Your task to perform on an android device: Search for "razer blackwidow" on amazon, select the first entry, and add it to the cart. Image 0: 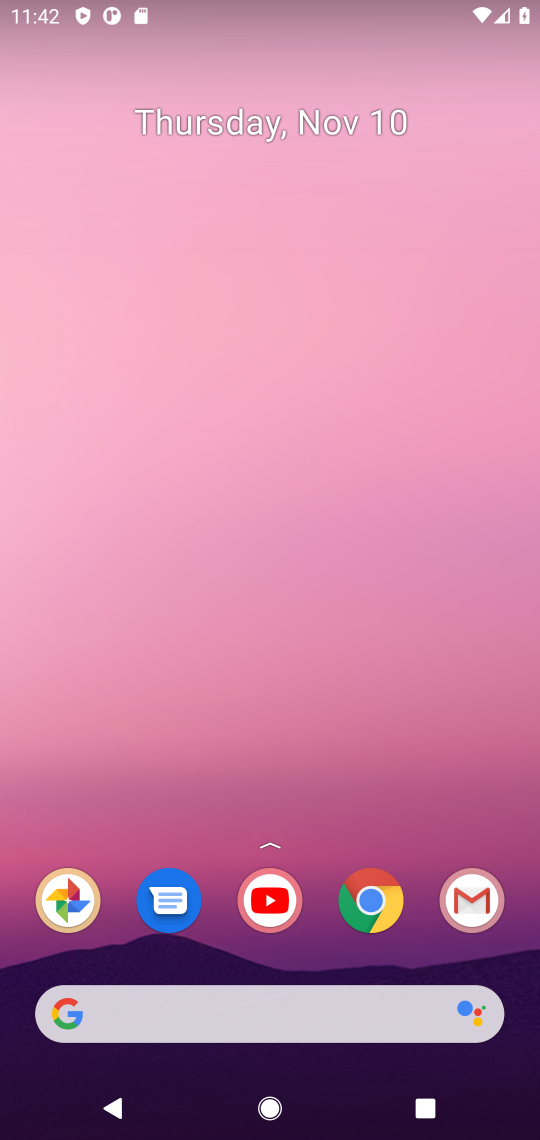
Step 0: click (372, 903)
Your task to perform on an android device: Search for "razer blackwidow" on amazon, select the first entry, and add it to the cart. Image 1: 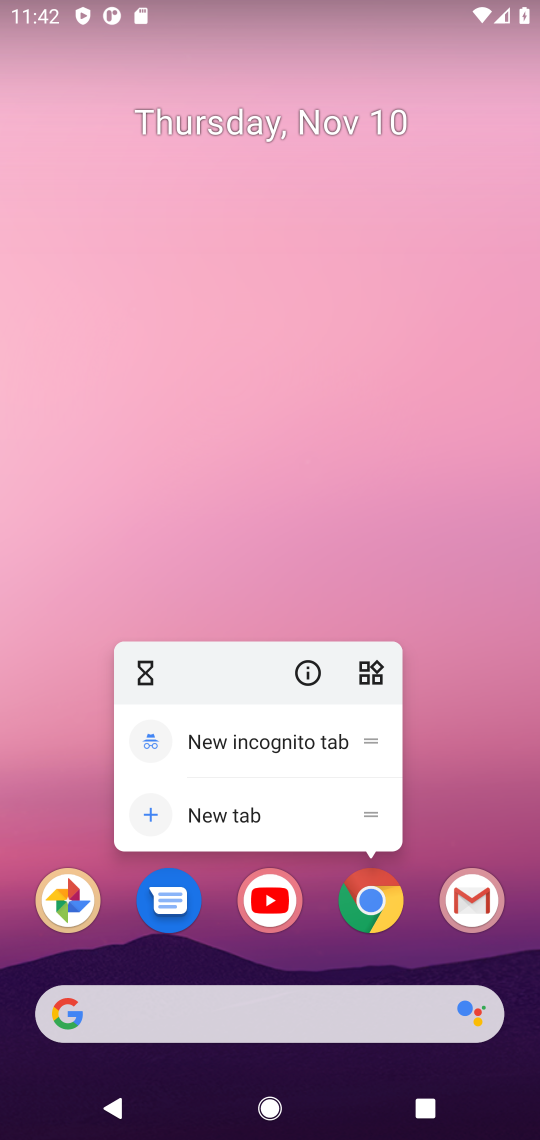
Step 1: click (372, 903)
Your task to perform on an android device: Search for "razer blackwidow" on amazon, select the first entry, and add it to the cart. Image 2: 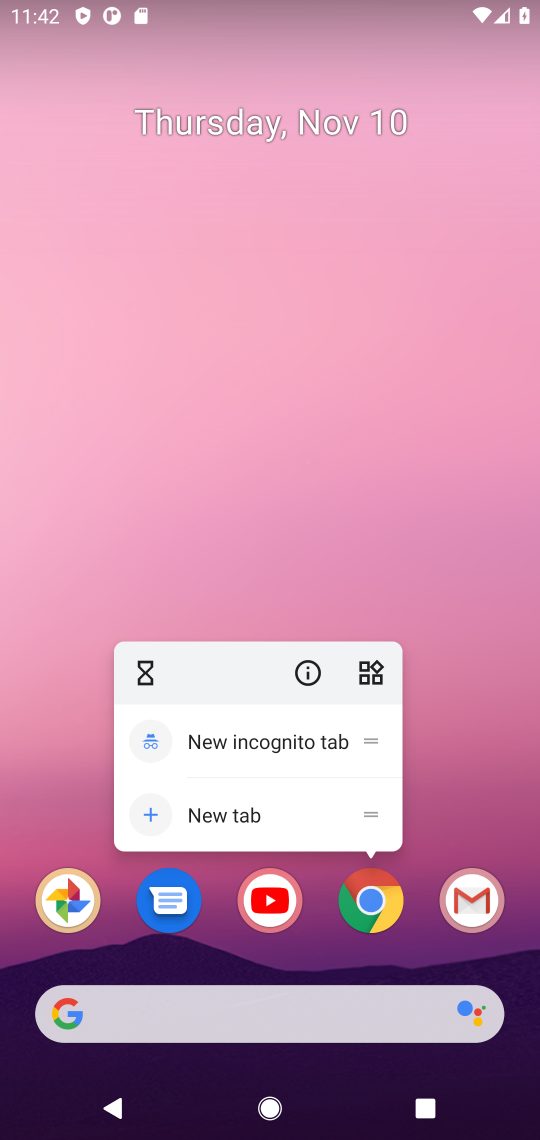
Step 2: click (372, 907)
Your task to perform on an android device: Search for "razer blackwidow" on amazon, select the first entry, and add it to the cart. Image 3: 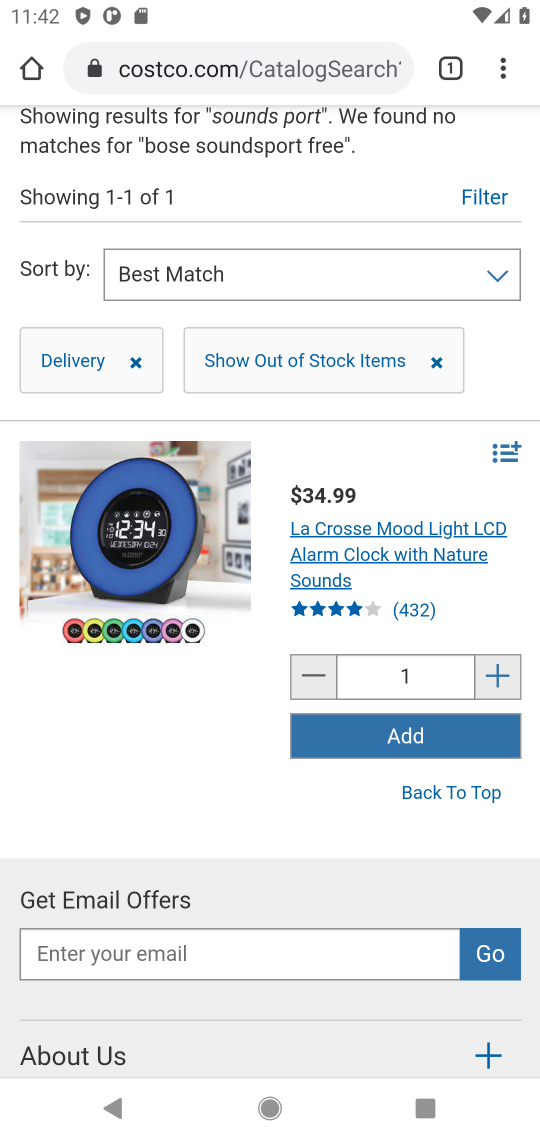
Step 3: click (319, 70)
Your task to perform on an android device: Search for "razer blackwidow" on amazon, select the first entry, and add it to the cart. Image 4: 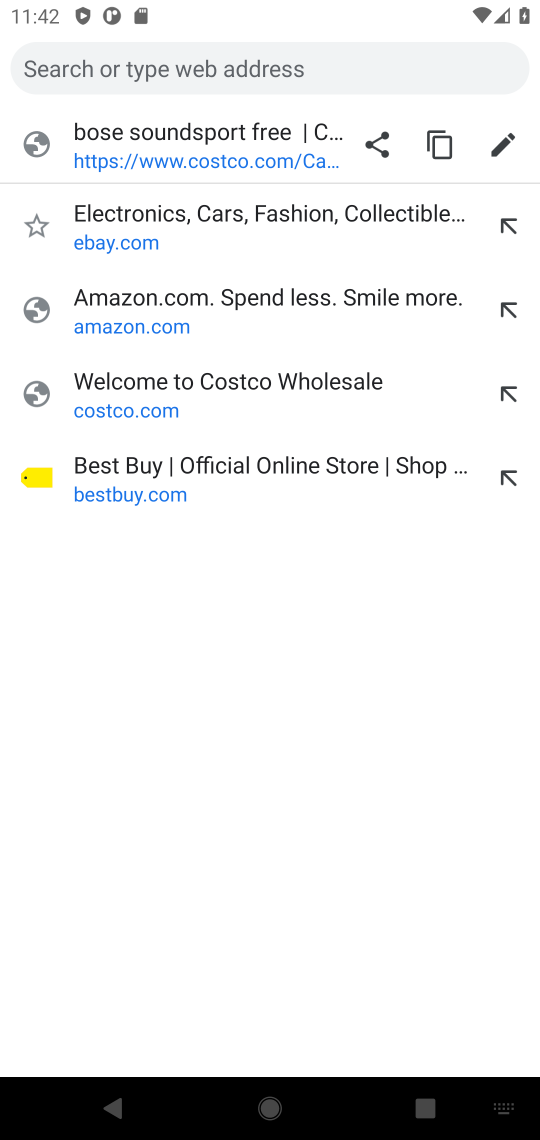
Step 4: click (149, 329)
Your task to perform on an android device: Search for "razer blackwidow" on amazon, select the first entry, and add it to the cart. Image 5: 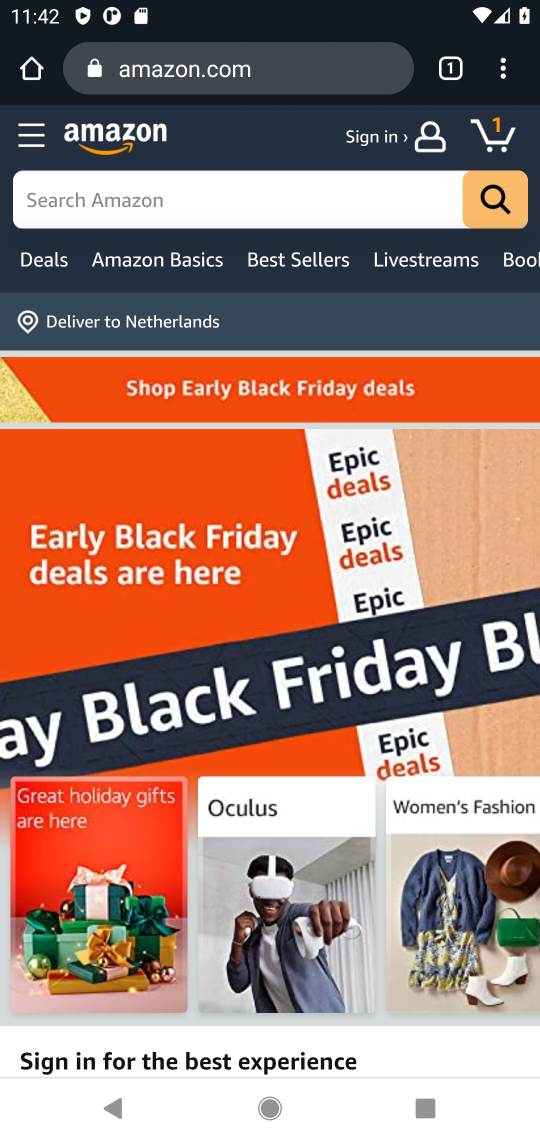
Step 5: click (51, 190)
Your task to perform on an android device: Search for "razer blackwidow" on amazon, select the first entry, and add it to the cart. Image 6: 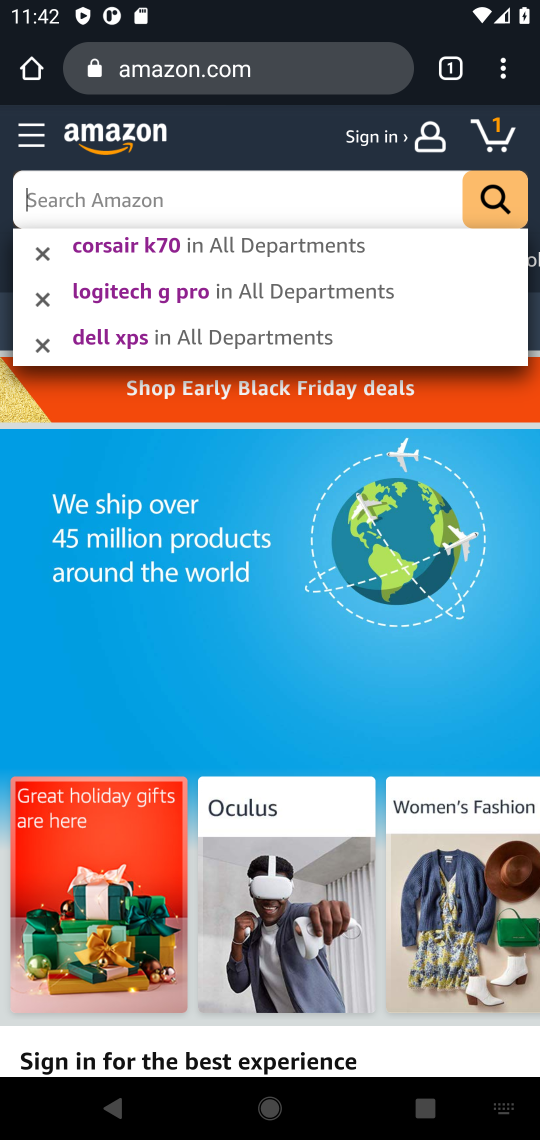
Step 6: type "razer blackwidow"
Your task to perform on an android device: Search for "razer blackwidow" on amazon, select the first entry, and add it to the cart. Image 7: 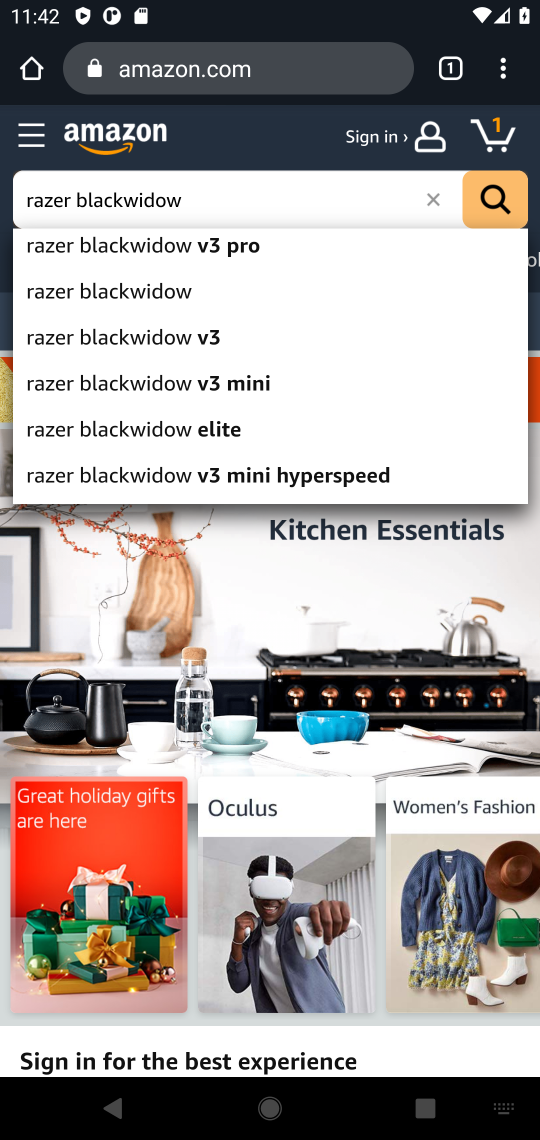
Step 7: press enter
Your task to perform on an android device: Search for "razer blackwidow" on amazon, select the first entry, and add it to the cart. Image 8: 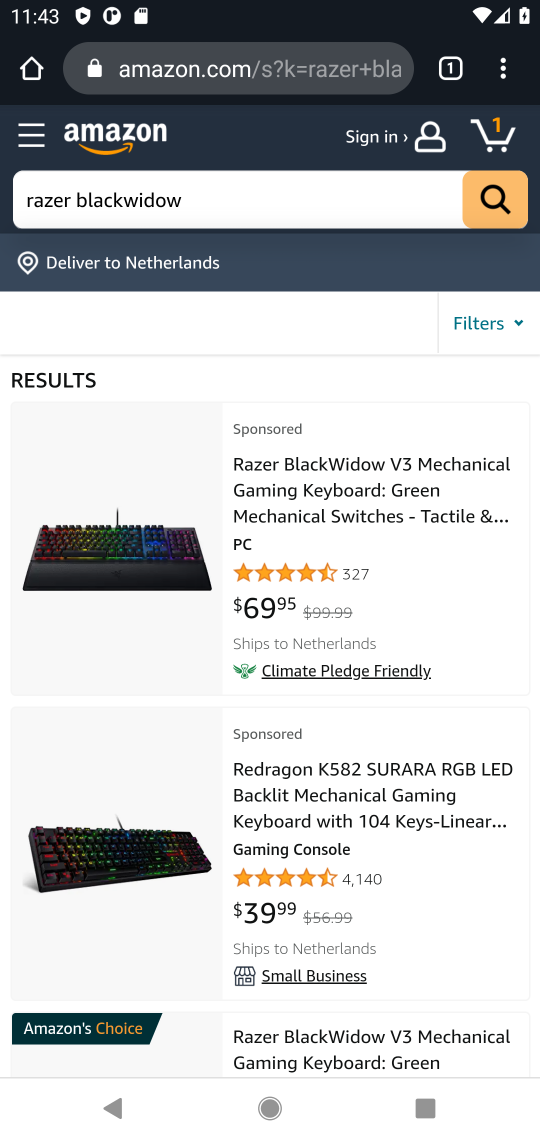
Step 8: click (381, 504)
Your task to perform on an android device: Search for "razer blackwidow" on amazon, select the first entry, and add it to the cart. Image 9: 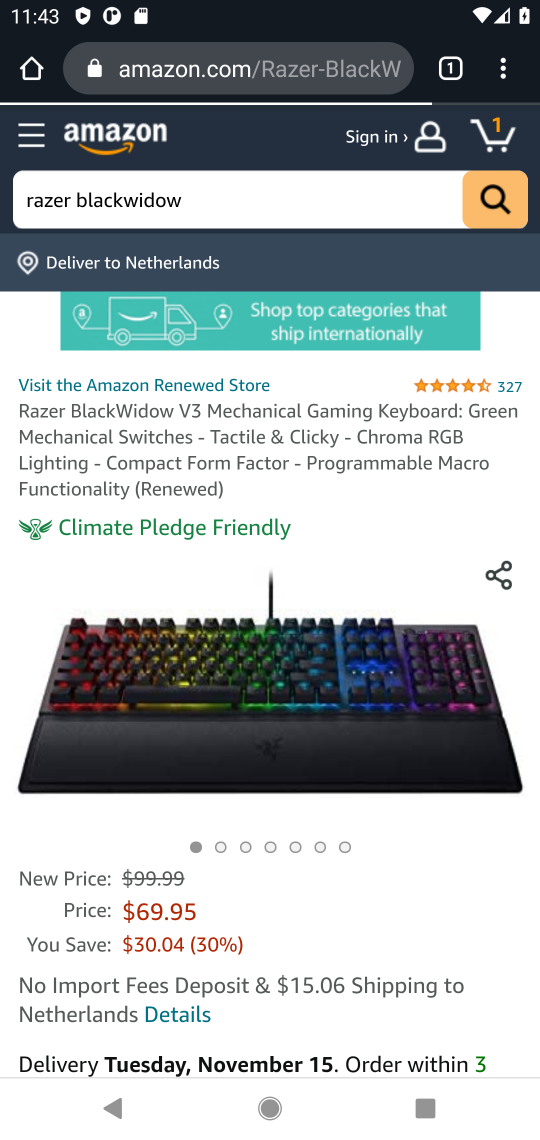
Step 9: drag from (241, 931) to (375, 391)
Your task to perform on an android device: Search for "razer blackwidow" on amazon, select the first entry, and add it to the cart. Image 10: 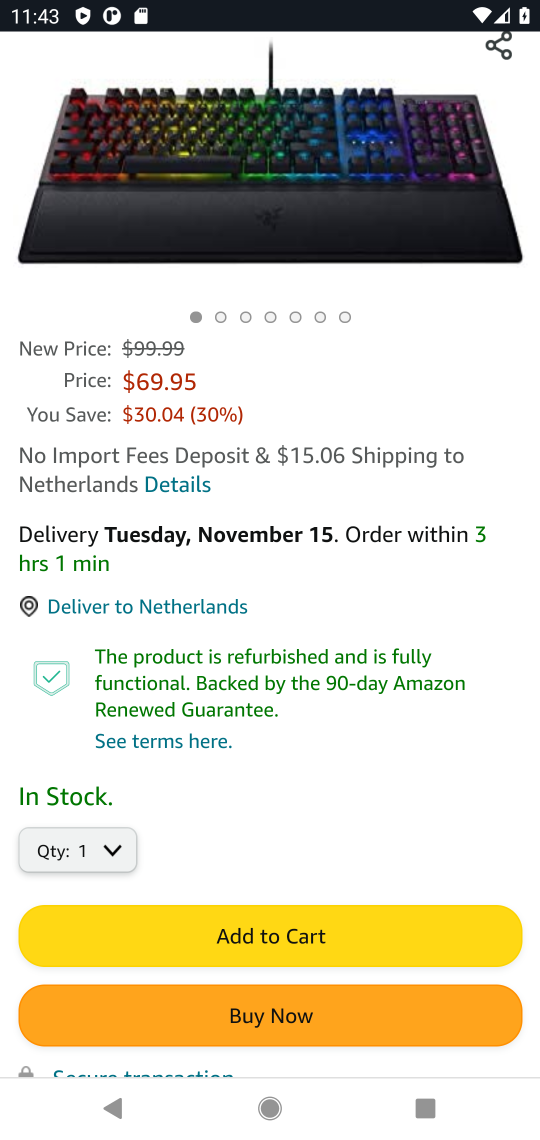
Step 10: click (287, 936)
Your task to perform on an android device: Search for "razer blackwidow" on amazon, select the first entry, and add it to the cart. Image 11: 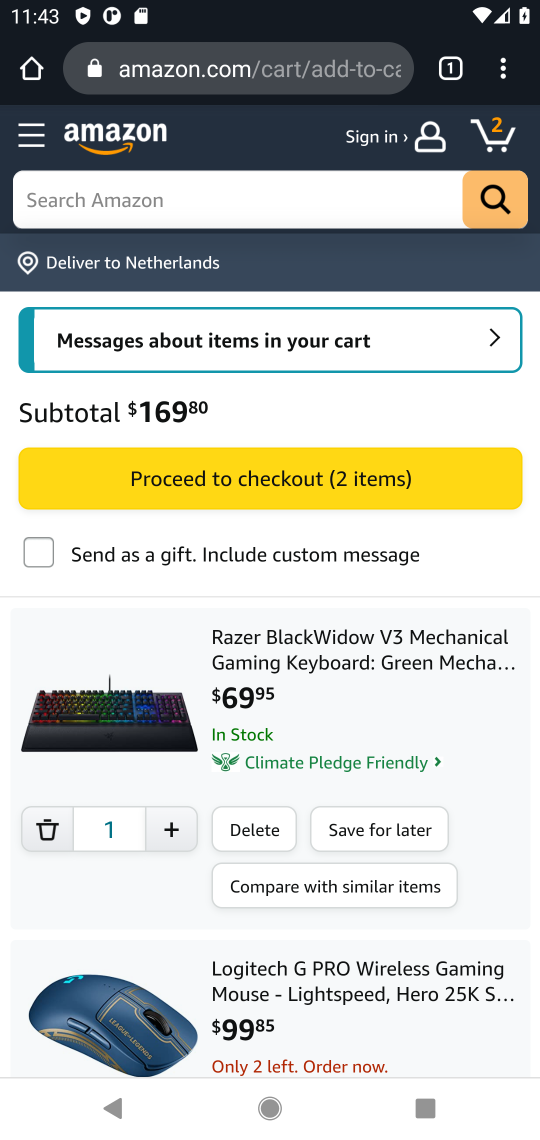
Step 11: drag from (302, 984) to (404, 552)
Your task to perform on an android device: Search for "razer blackwidow" on amazon, select the first entry, and add it to the cart. Image 12: 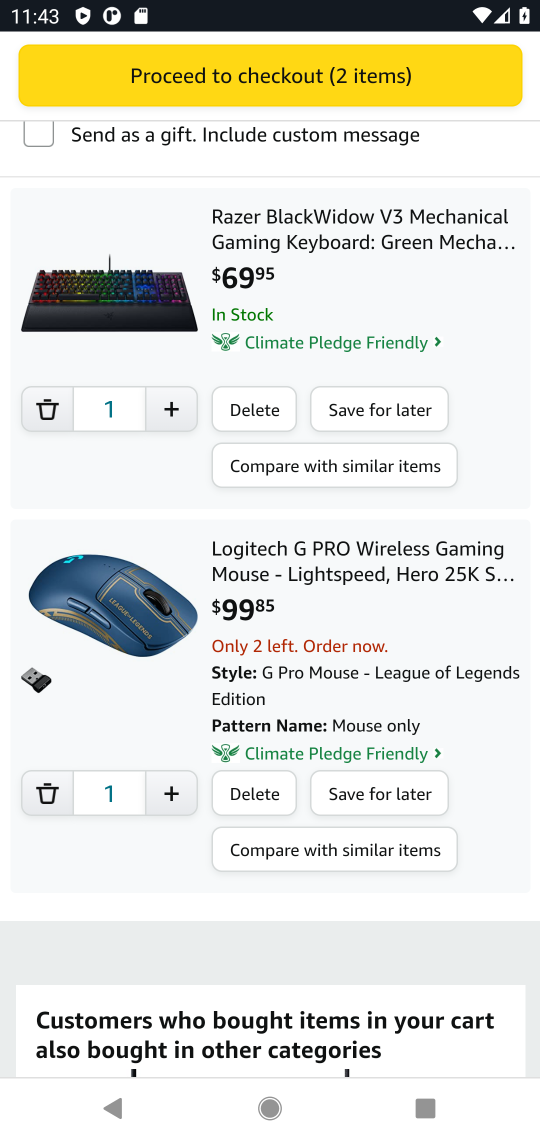
Step 12: click (45, 788)
Your task to perform on an android device: Search for "razer blackwidow" on amazon, select the first entry, and add it to the cart. Image 13: 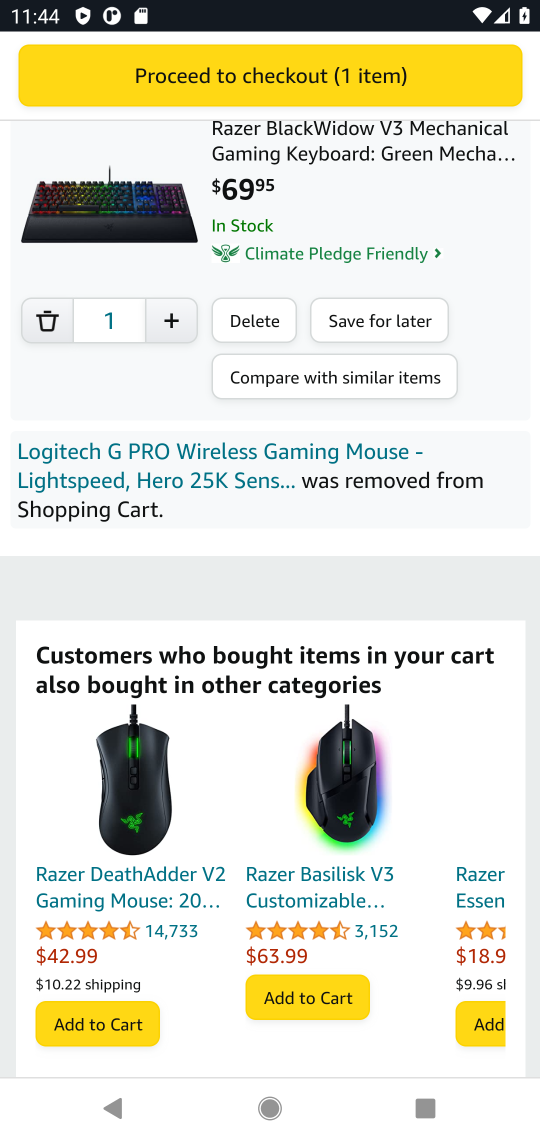
Step 13: task complete